Your task to perform on an android device: How much does a 2 bedroom apartment rent for in Washington DC? Image 0: 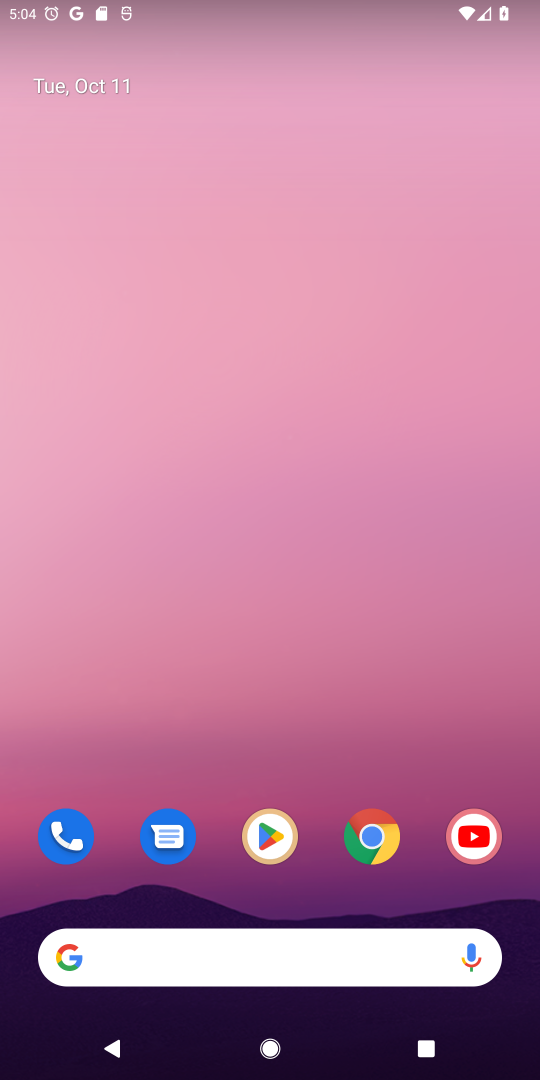
Step 0: click (360, 943)
Your task to perform on an android device: How much does a 2 bedroom apartment rent for in Washington DC? Image 1: 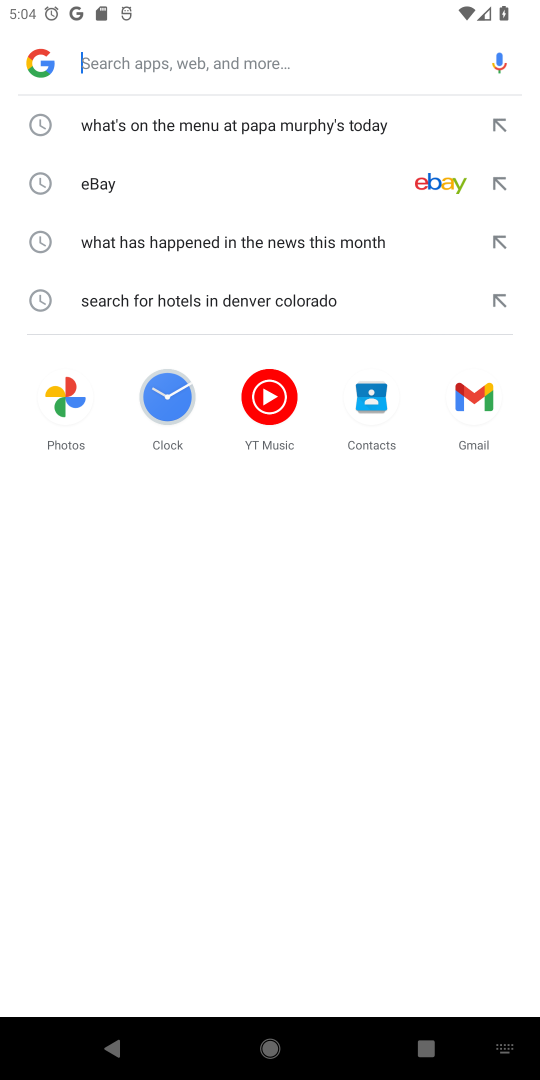
Step 1: type "How much does a 2 bedroom apartment rent for in Washington DC?"
Your task to perform on an android device: How much does a 2 bedroom apartment rent for in Washington DC? Image 2: 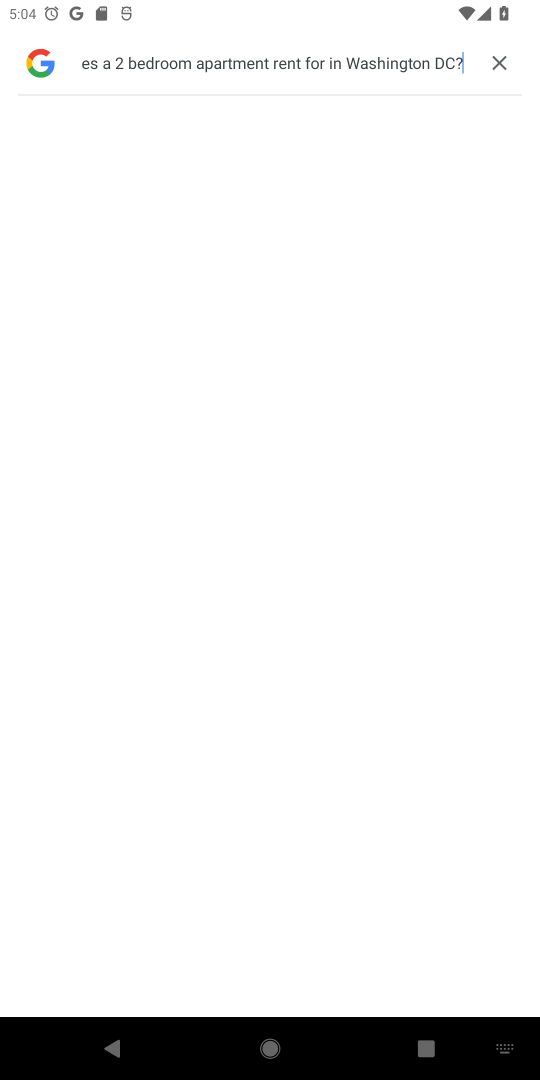
Step 2: task complete